Your task to perform on an android device: Go to location settings Image 0: 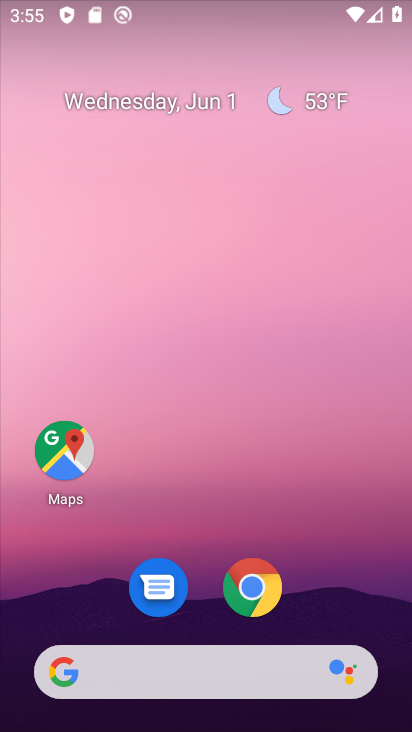
Step 0: drag from (333, 571) to (252, 84)
Your task to perform on an android device: Go to location settings Image 1: 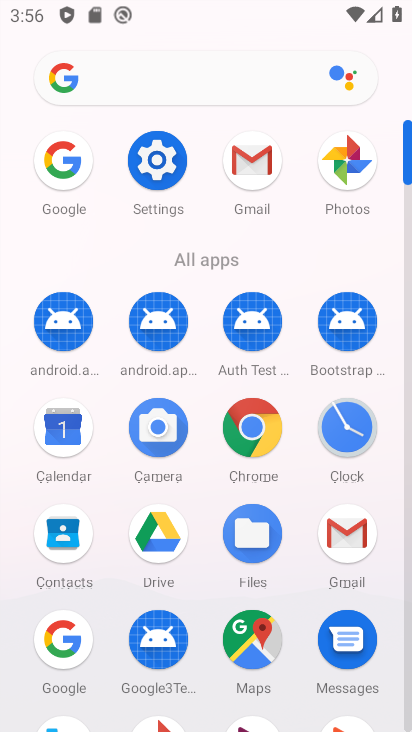
Step 1: click (158, 161)
Your task to perform on an android device: Go to location settings Image 2: 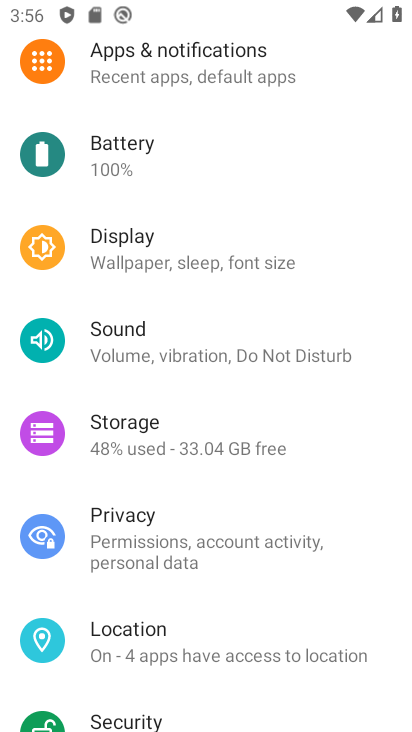
Step 2: click (199, 631)
Your task to perform on an android device: Go to location settings Image 3: 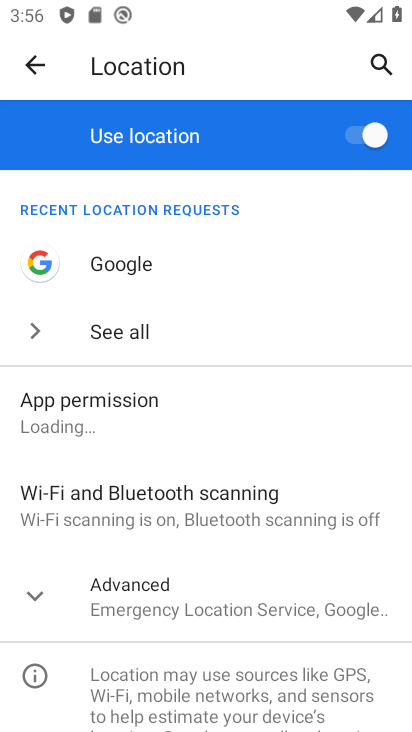
Step 3: task complete